Your task to perform on an android device: turn on bluetooth scan Image 0: 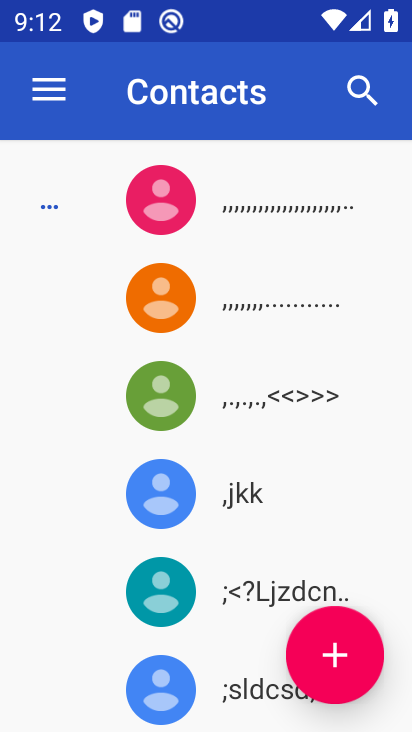
Step 0: press home button
Your task to perform on an android device: turn on bluetooth scan Image 1: 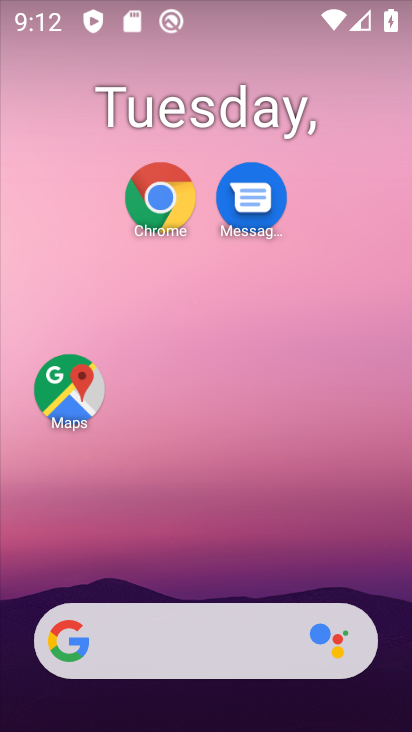
Step 1: drag from (210, 590) to (28, 241)
Your task to perform on an android device: turn on bluetooth scan Image 2: 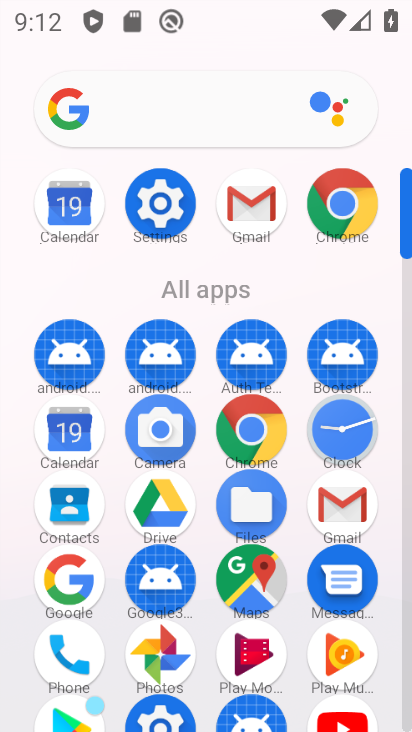
Step 2: click (151, 194)
Your task to perform on an android device: turn on bluetooth scan Image 3: 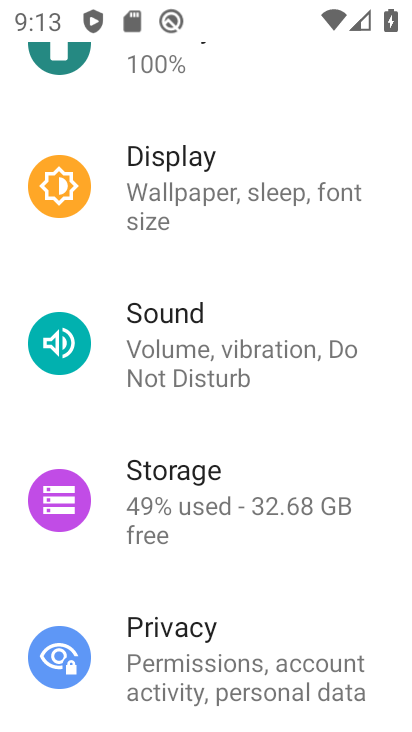
Step 3: drag from (231, 598) to (218, 56)
Your task to perform on an android device: turn on bluetooth scan Image 4: 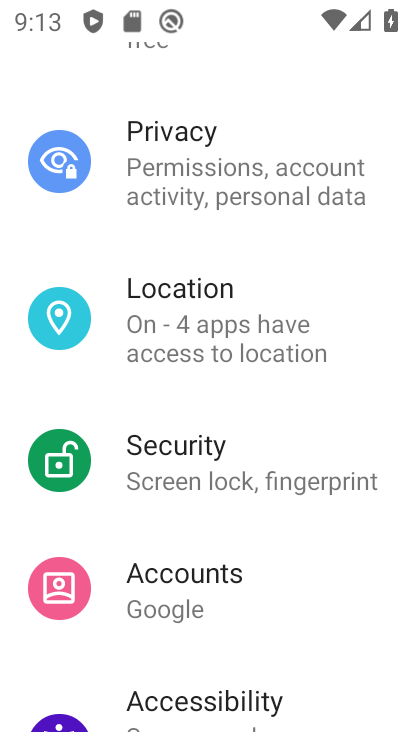
Step 4: click (183, 302)
Your task to perform on an android device: turn on bluetooth scan Image 5: 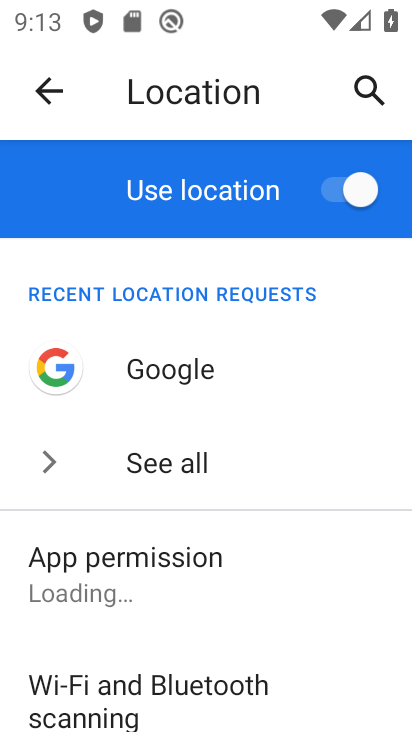
Step 5: click (224, 673)
Your task to perform on an android device: turn on bluetooth scan Image 6: 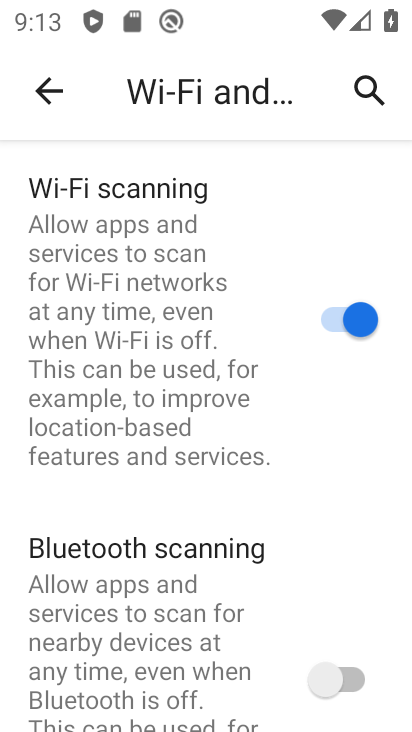
Step 6: click (328, 671)
Your task to perform on an android device: turn on bluetooth scan Image 7: 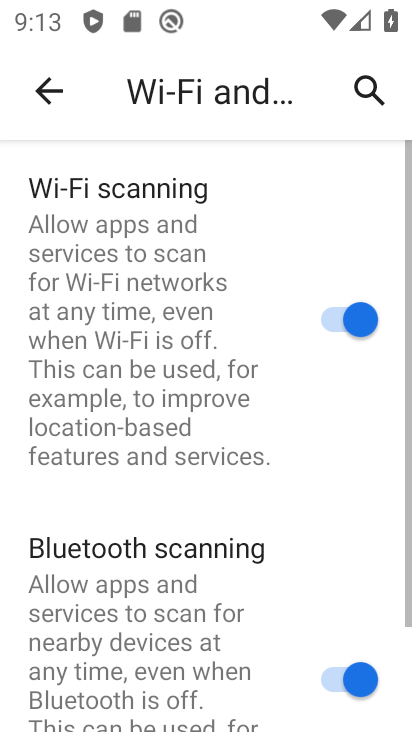
Step 7: task complete